Your task to perform on an android device: open wifi settings Image 0: 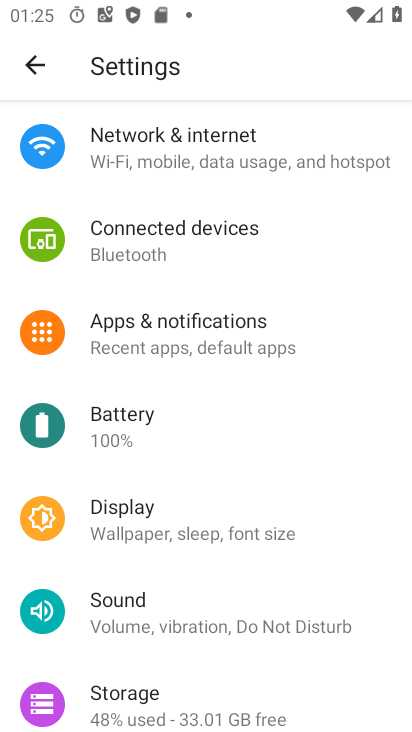
Step 0: press home button
Your task to perform on an android device: open wifi settings Image 1: 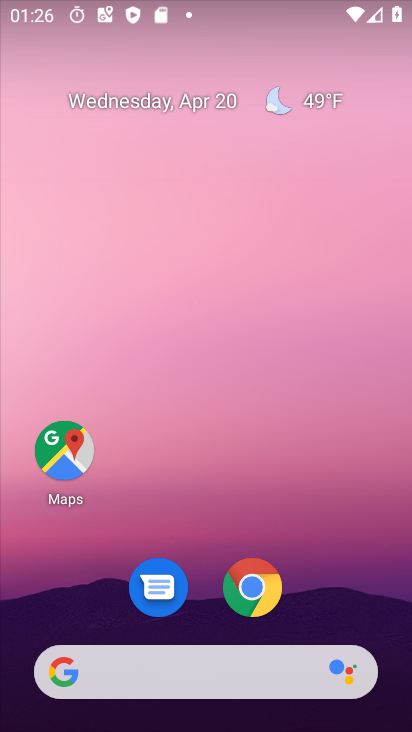
Step 1: drag from (383, 619) to (404, 22)
Your task to perform on an android device: open wifi settings Image 2: 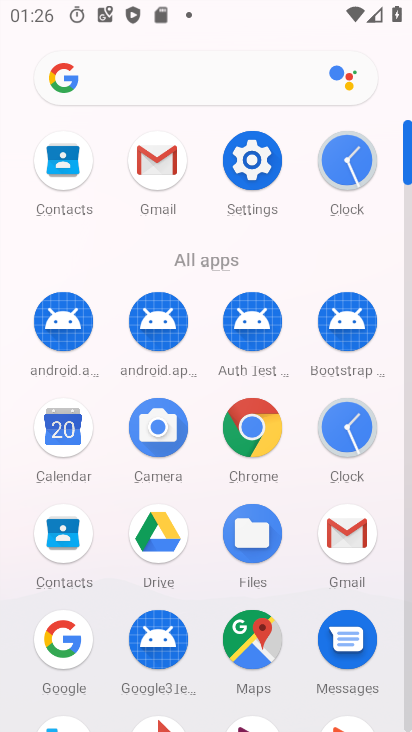
Step 2: click (252, 166)
Your task to perform on an android device: open wifi settings Image 3: 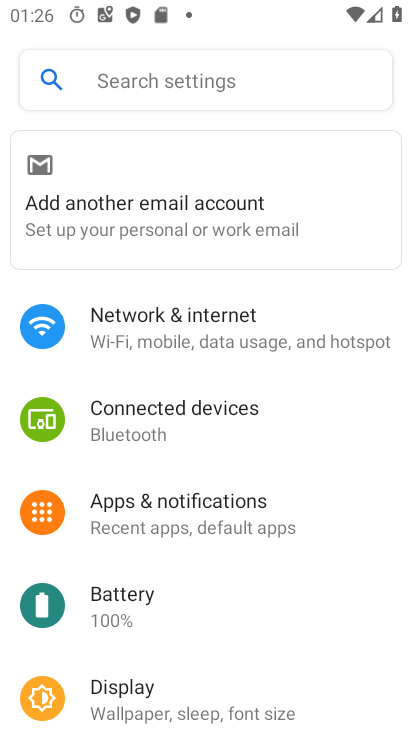
Step 3: click (196, 346)
Your task to perform on an android device: open wifi settings Image 4: 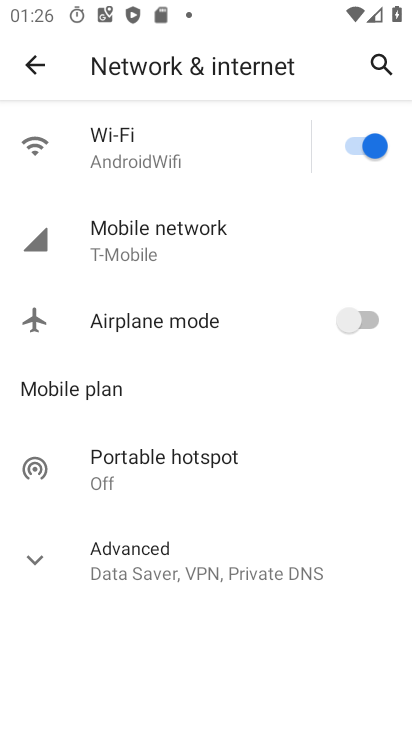
Step 4: click (84, 149)
Your task to perform on an android device: open wifi settings Image 5: 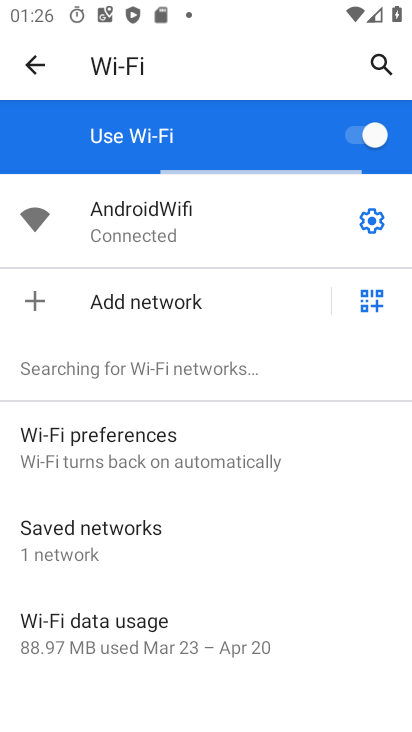
Step 5: task complete